Your task to perform on an android device: Set the phone to "Do not disturb". Image 0: 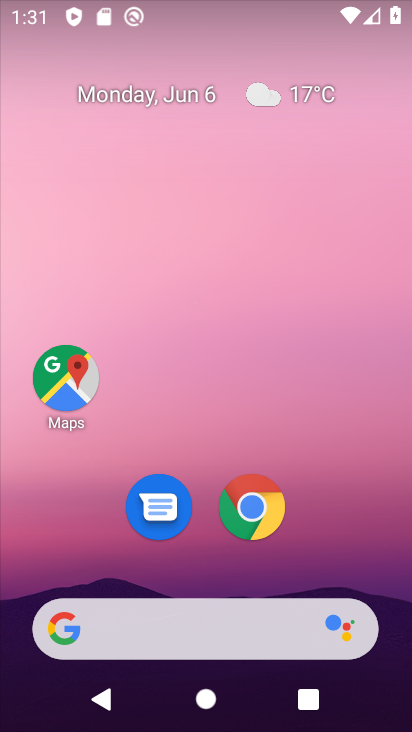
Step 0: drag from (206, 669) to (179, 179)
Your task to perform on an android device: Set the phone to "Do not disturb". Image 1: 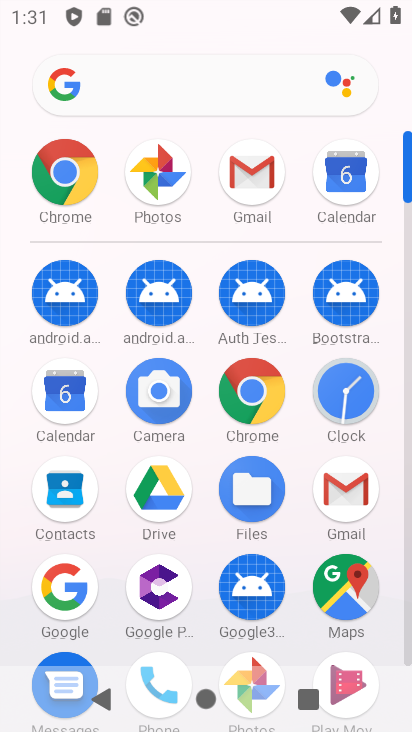
Step 1: drag from (122, 535) to (188, 318)
Your task to perform on an android device: Set the phone to "Do not disturb". Image 2: 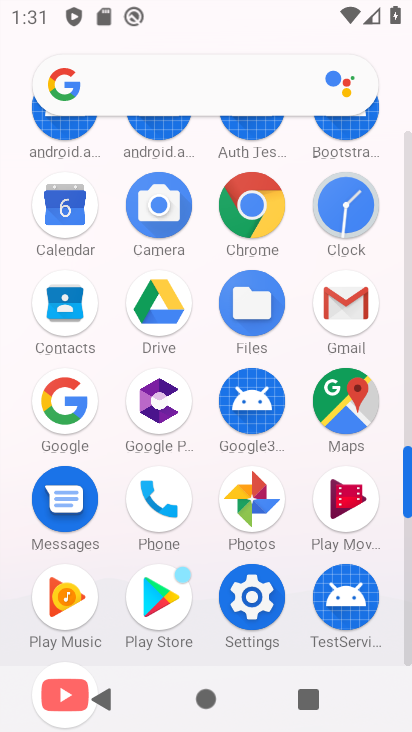
Step 2: click (277, 613)
Your task to perform on an android device: Set the phone to "Do not disturb". Image 3: 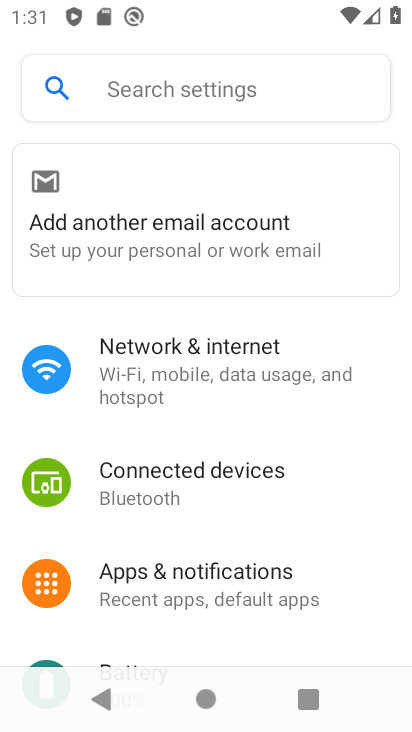
Step 3: click (181, 90)
Your task to perform on an android device: Set the phone to "Do not disturb". Image 4: 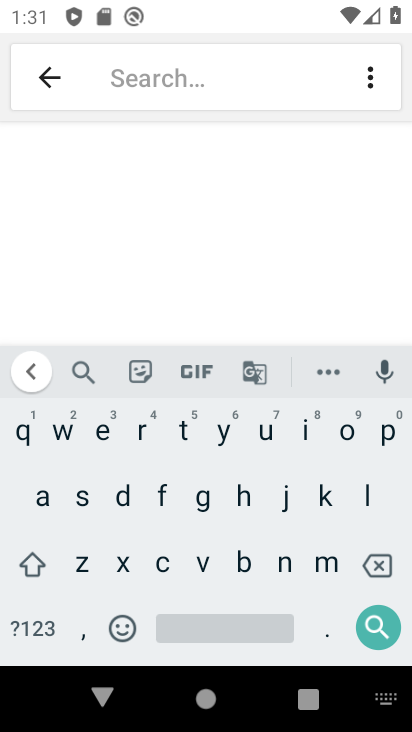
Step 4: click (111, 501)
Your task to perform on an android device: Set the phone to "Do not disturb". Image 5: 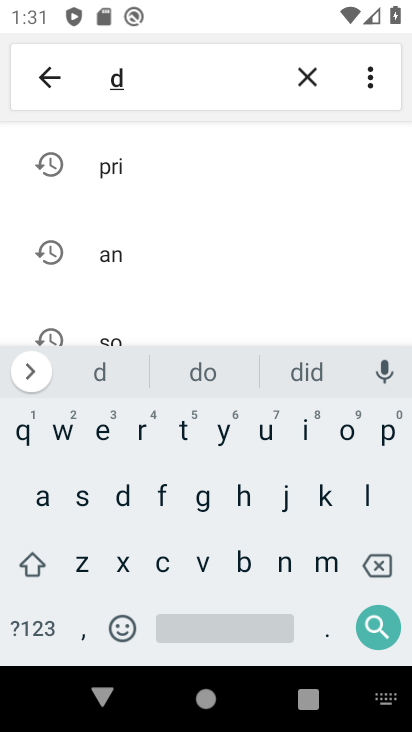
Step 5: click (286, 567)
Your task to perform on an android device: Set the phone to "Do not disturb". Image 6: 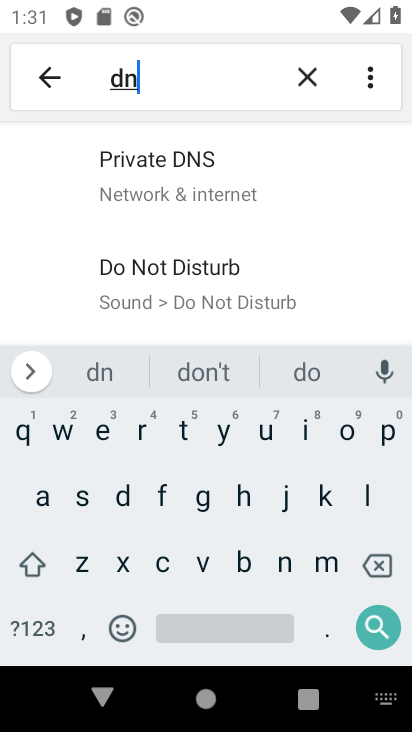
Step 6: click (117, 498)
Your task to perform on an android device: Set the phone to "Do not disturb". Image 7: 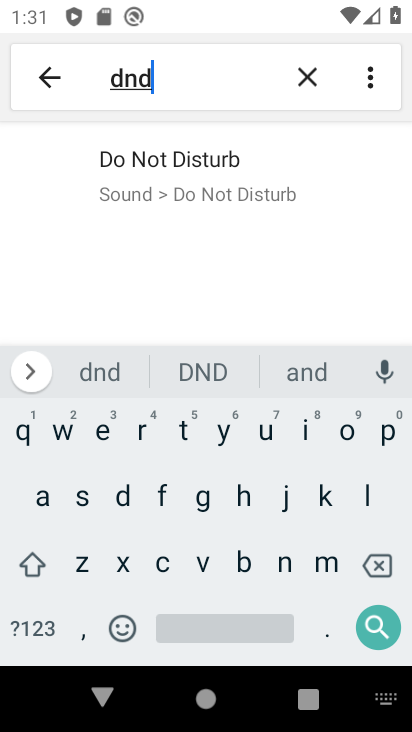
Step 7: click (204, 171)
Your task to perform on an android device: Set the phone to "Do not disturb". Image 8: 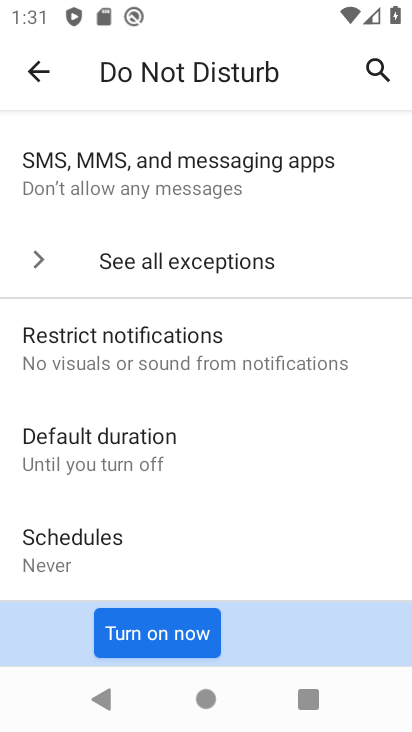
Step 8: click (122, 638)
Your task to perform on an android device: Set the phone to "Do not disturb". Image 9: 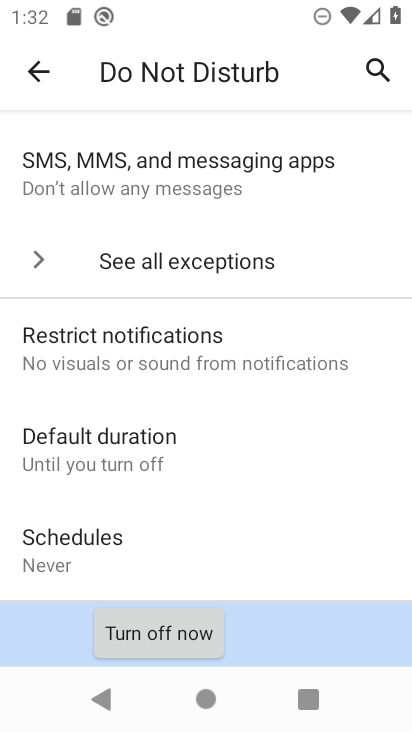
Step 9: task complete